Your task to perform on an android device: Search for top rated sushi restaurants on Maps Image 0: 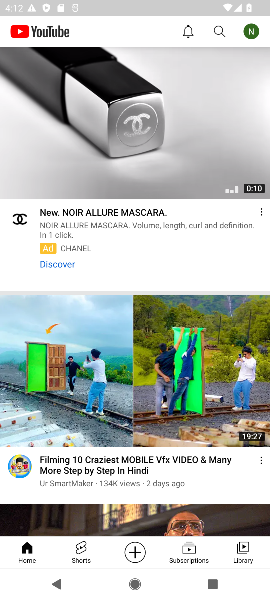
Step 0: press home button
Your task to perform on an android device: Search for top rated sushi restaurants on Maps Image 1: 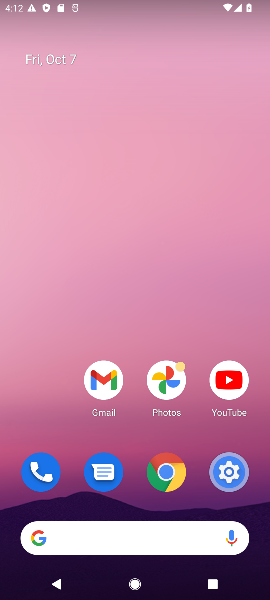
Step 1: drag from (206, 452) to (184, 68)
Your task to perform on an android device: Search for top rated sushi restaurants on Maps Image 2: 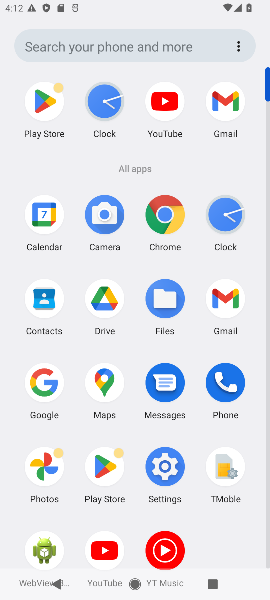
Step 2: click (106, 387)
Your task to perform on an android device: Search for top rated sushi restaurants on Maps Image 3: 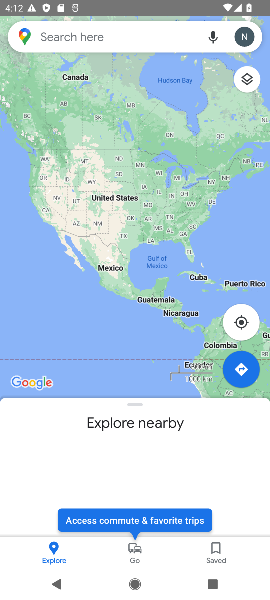
Step 3: click (112, 38)
Your task to perform on an android device: Search for top rated sushi restaurants on Maps Image 4: 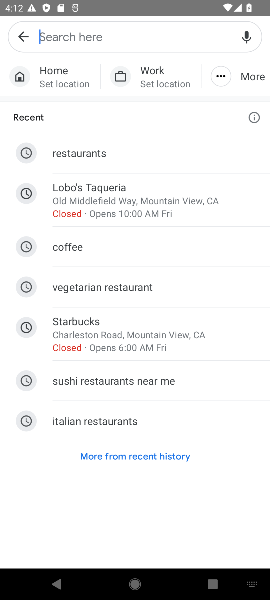
Step 4: type "top rated sushi restaurants"
Your task to perform on an android device: Search for top rated sushi restaurants on Maps Image 5: 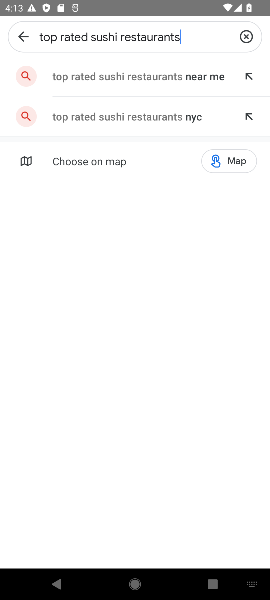
Step 5: press enter
Your task to perform on an android device: Search for top rated sushi restaurants on Maps Image 6: 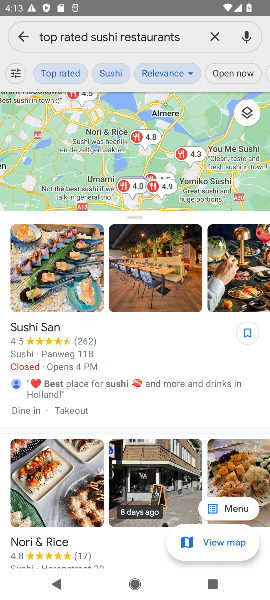
Step 6: task complete